Your task to perform on an android device: snooze an email in the gmail app Image 0: 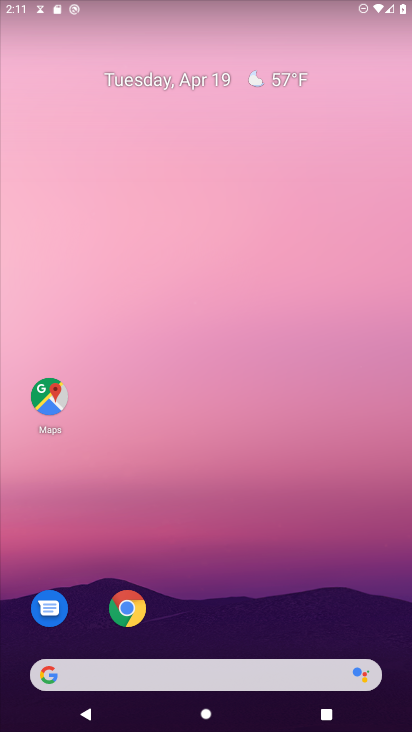
Step 0: drag from (173, 603) to (106, 128)
Your task to perform on an android device: snooze an email in the gmail app Image 1: 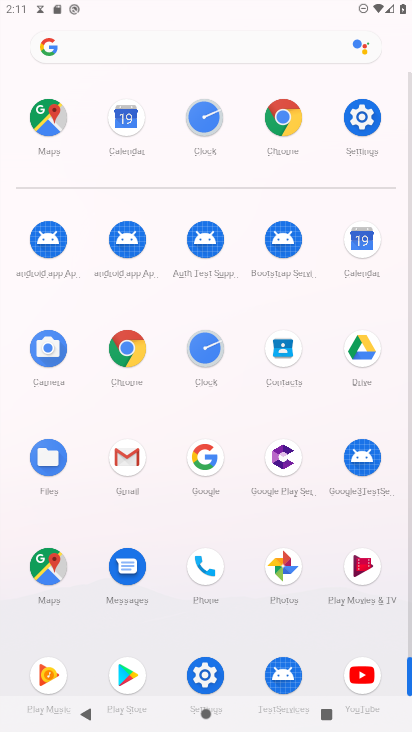
Step 1: click (125, 464)
Your task to perform on an android device: snooze an email in the gmail app Image 2: 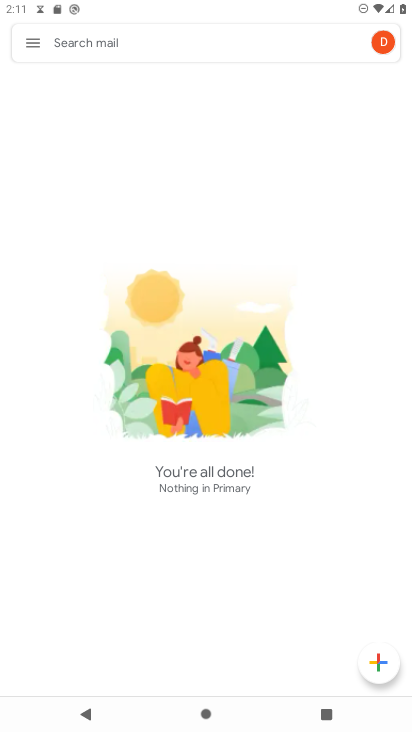
Step 2: click (387, 46)
Your task to perform on an android device: snooze an email in the gmail app Image 3: 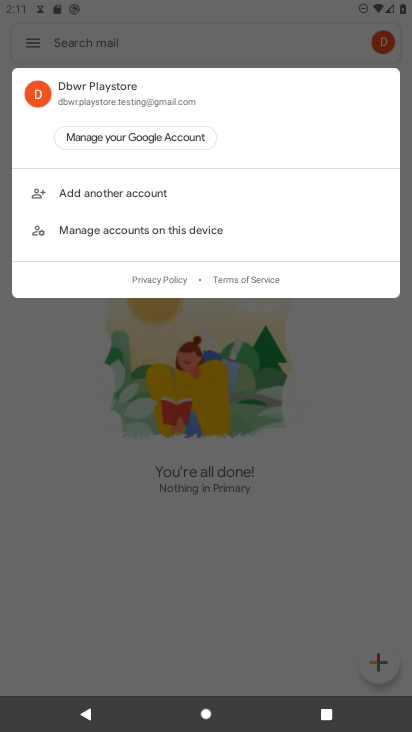
Step 3: click (245, 37)
Your task to perform on an android device: snooze an email in the gmail app Image 4: 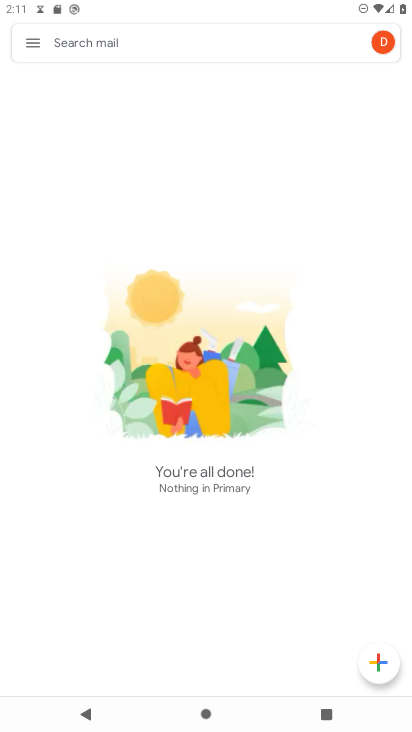
Step 4: click (28, 48)
Your task to perform on an android device: snooze an email in the gmail app Image 5: 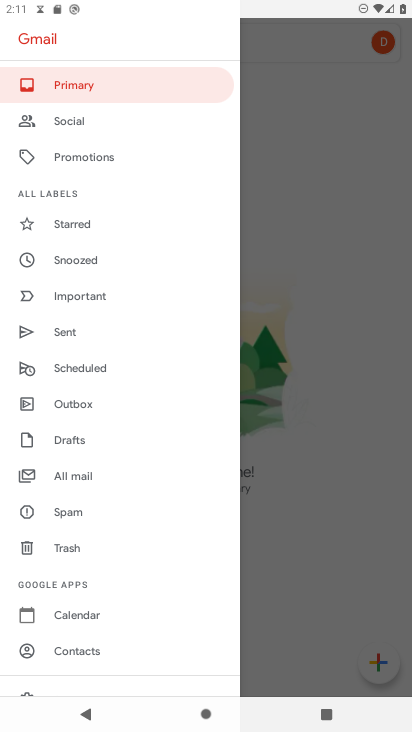
Step 5: click (373, 283)
Your task to perform on an android device: snooze an email in the gmail app Image 6: 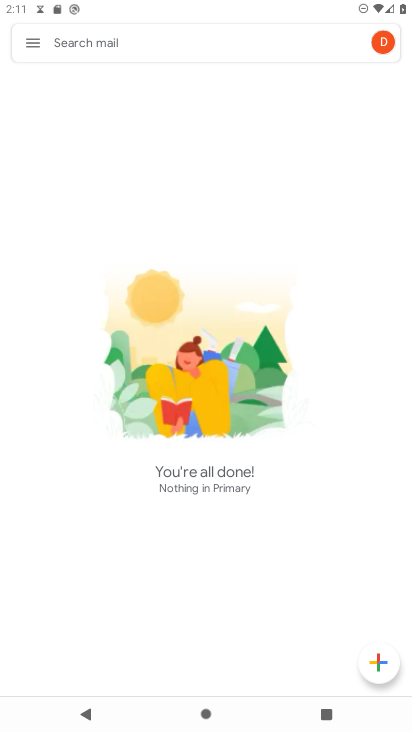
Step 6: task complete